Your task to perform on an android device: Open the phone app and click the voicemail tab. Image 0: 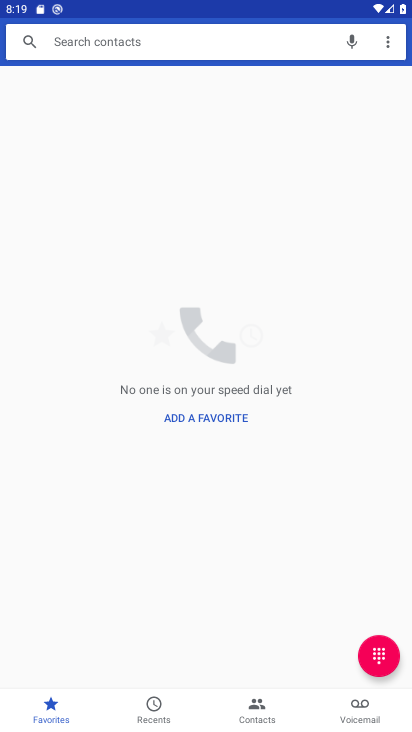
Step 0: click (357, 702)
Your task to perform on an android device: Open the phone app and click the voicemail tab. Image 1: 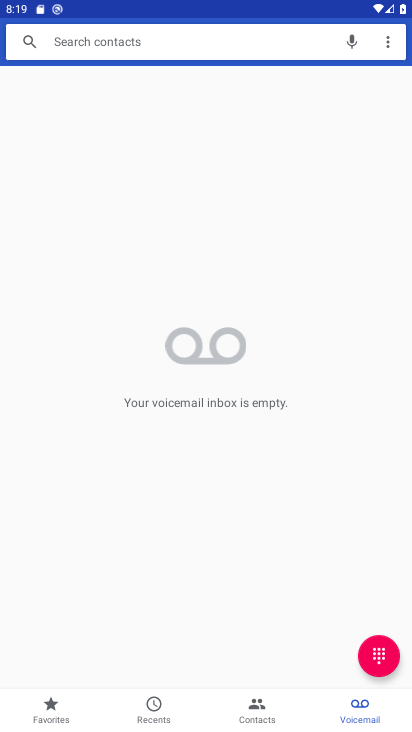
Step 1: task complete